Your task to perform on an android device: Open the calendar and show me this week's events Image 0: 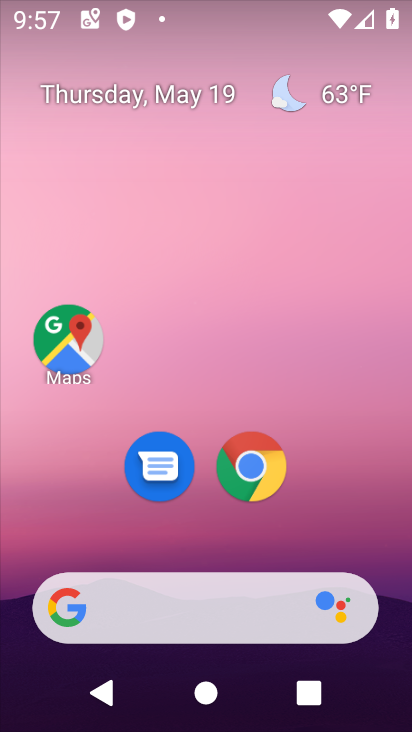
Step 0: drag from (388, 624) to (262, 81)
Your task to perform on an android device: Open the calendar and show me this week's events Image 1: 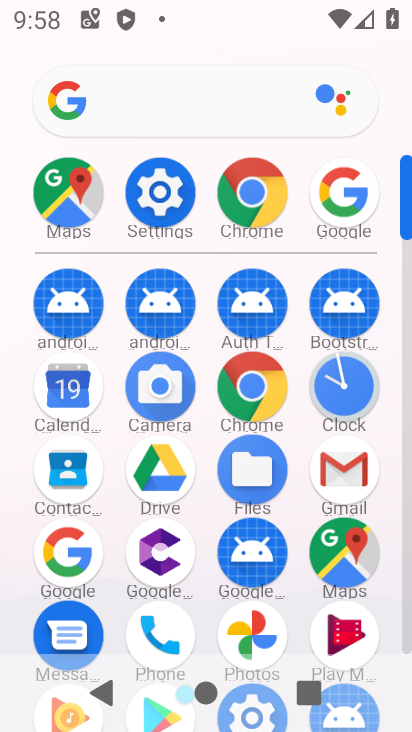
Step 1: click (79, 391)
Your task to perform on an android device: Open the calendar and show me this week's events Image 2: 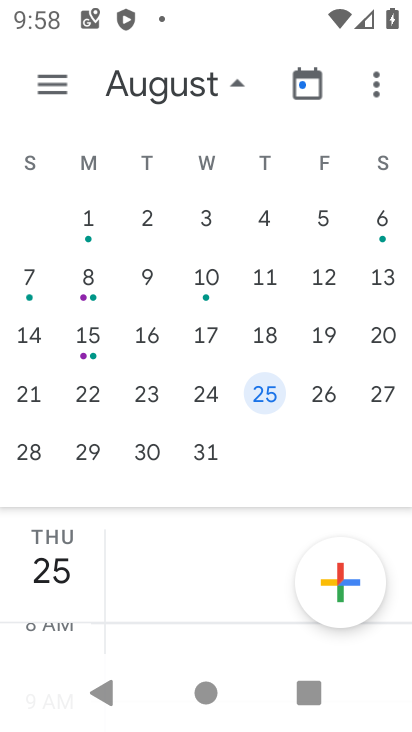
Step 2: task complete